Your task to perform on an android device: Open sound settings Image 0: 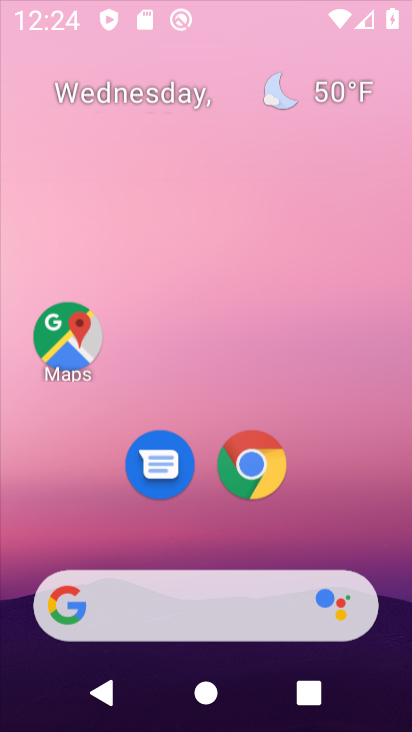
Step 0: click (221, 95)
Your task to perform on an android device: Open sound settings Image 1: 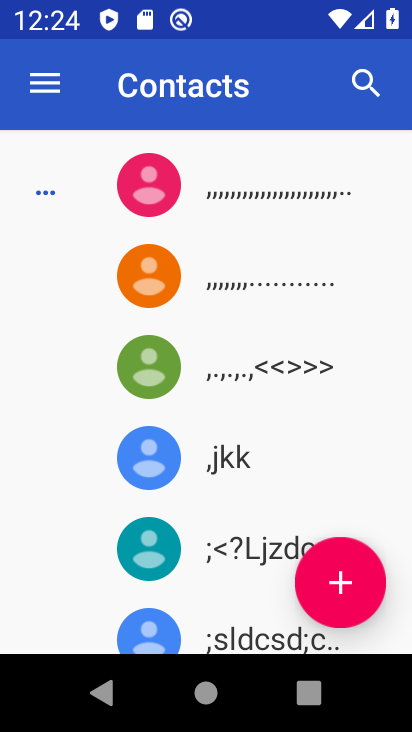
Step 1: press home button
Your task to perform on an android device: Open sound settings Image 2: 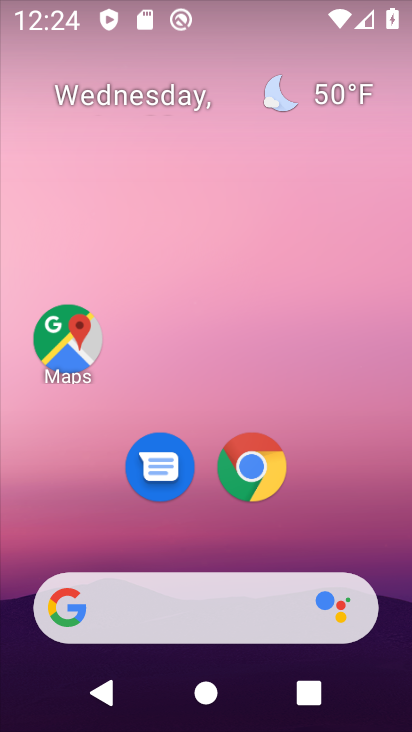
Step 2: drag from (226, 440) to (242, 134)
Your task to perform on an android device: Open sound settings Image 3: 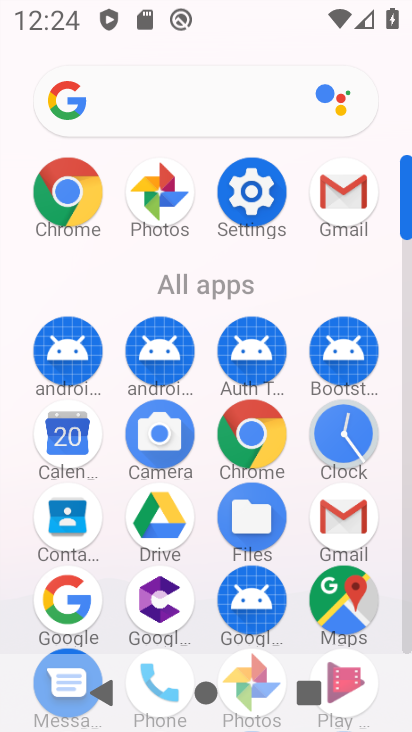
Step 3: click (248, 179)
Your task to perform on an android device: Open sound settings Image 4: 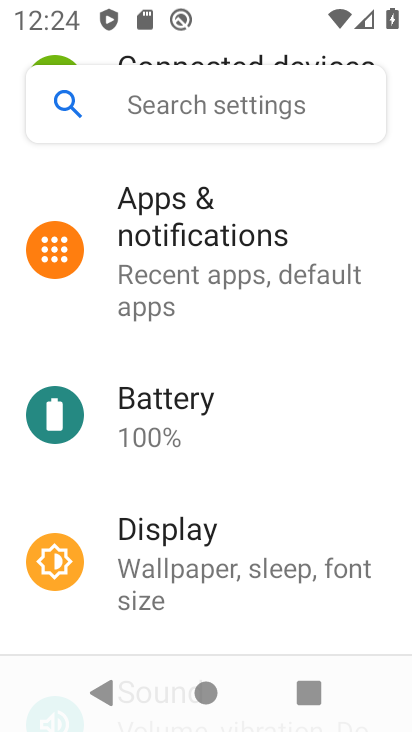
Step 4: drag from (201, 399) to (224, 213)
Your task to perform on an android device: Open sound settings Image 5: 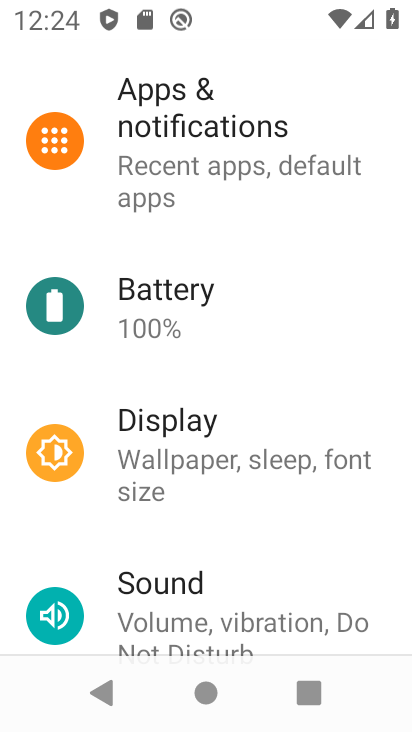
Step 5: click (226, 601)
Your task to perform on an android device: Open sound settings Image 6: 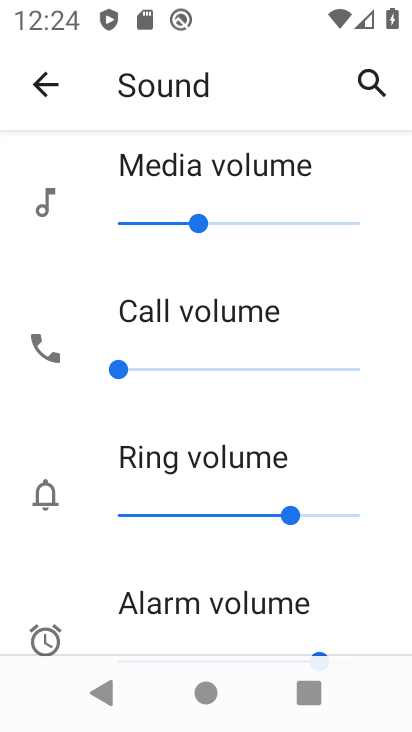
Step 6: task complete